Your task to perform on an android device: uninstall "Airtel Thanks" Image 0: 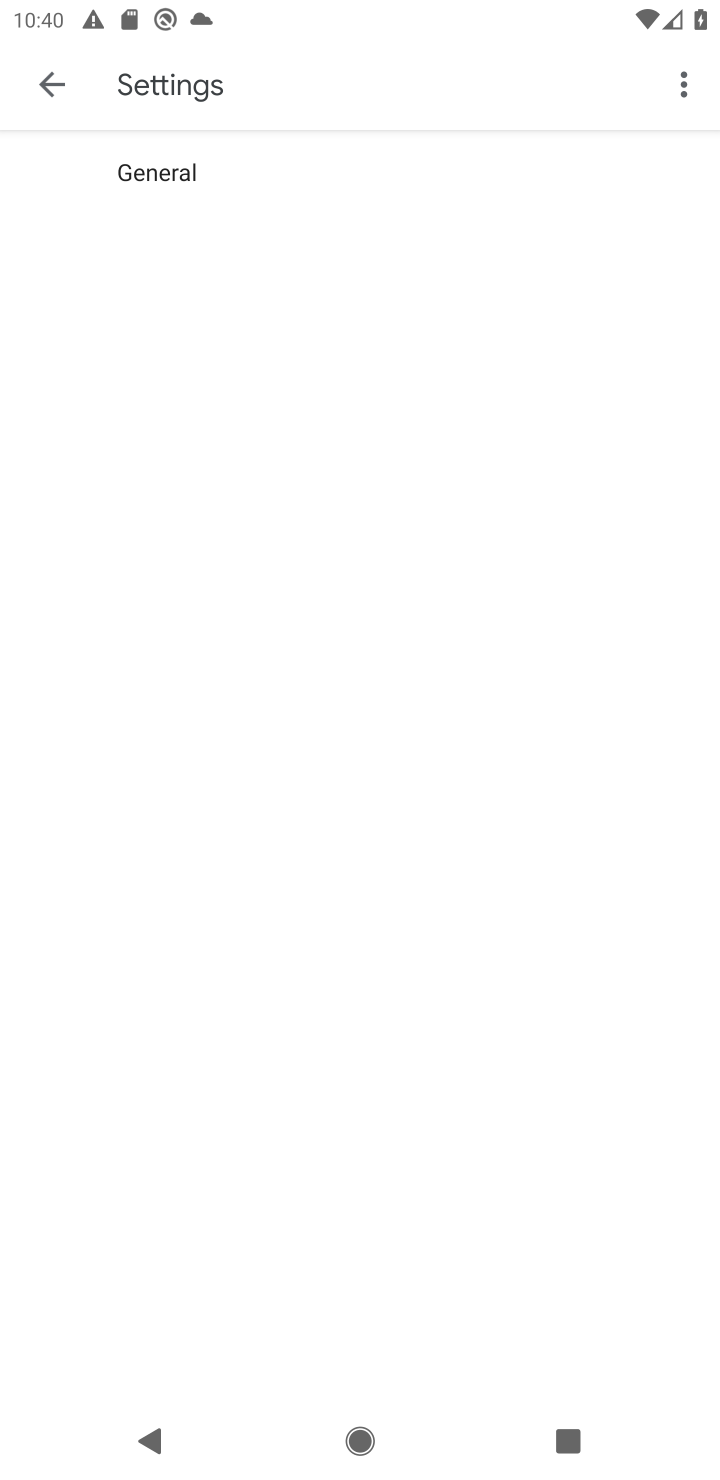
Step 0: press home button
Your task to perform on an android device: uninstall "Airtel Thanks" Image 1: 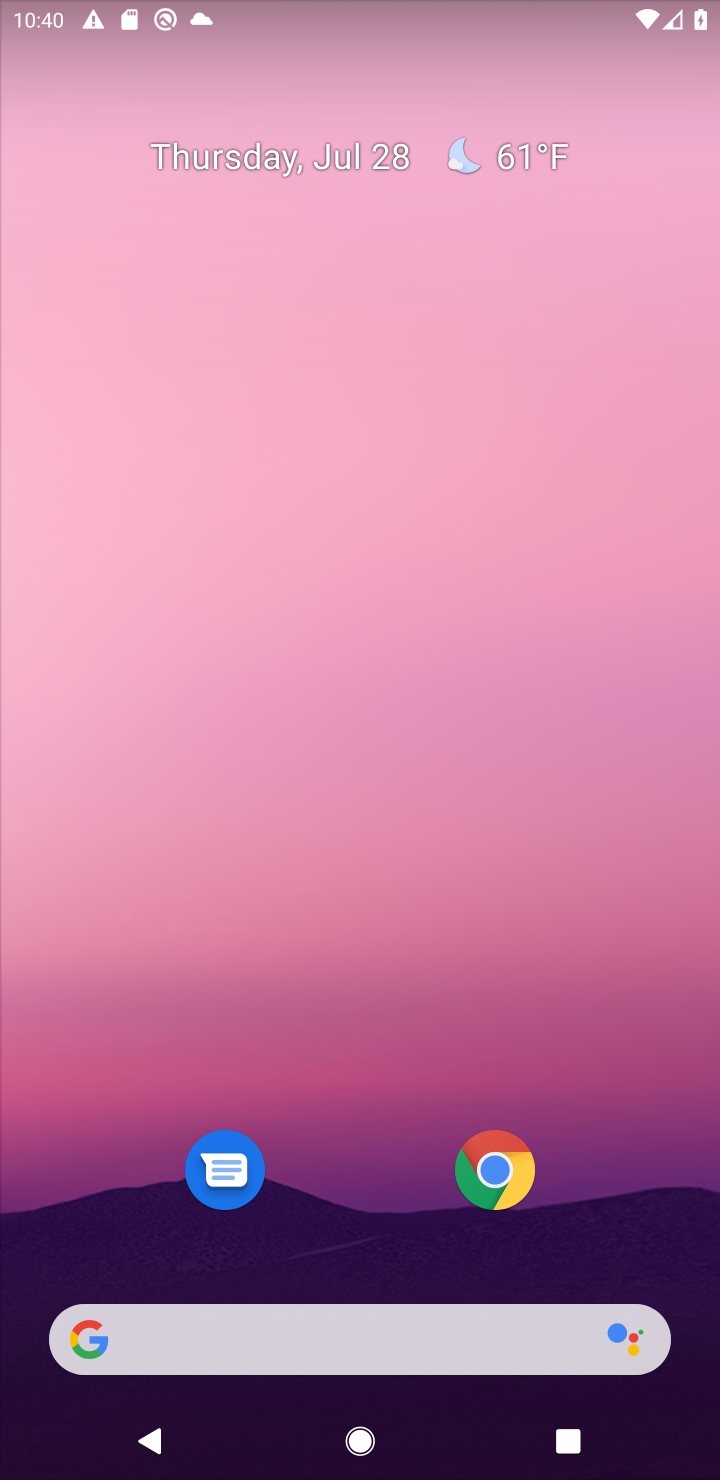
Step 1: drag from (304, 1270) to (372, 18)
Your task to perform on an android device: uninstall "Airtel Thanks" Image 2: 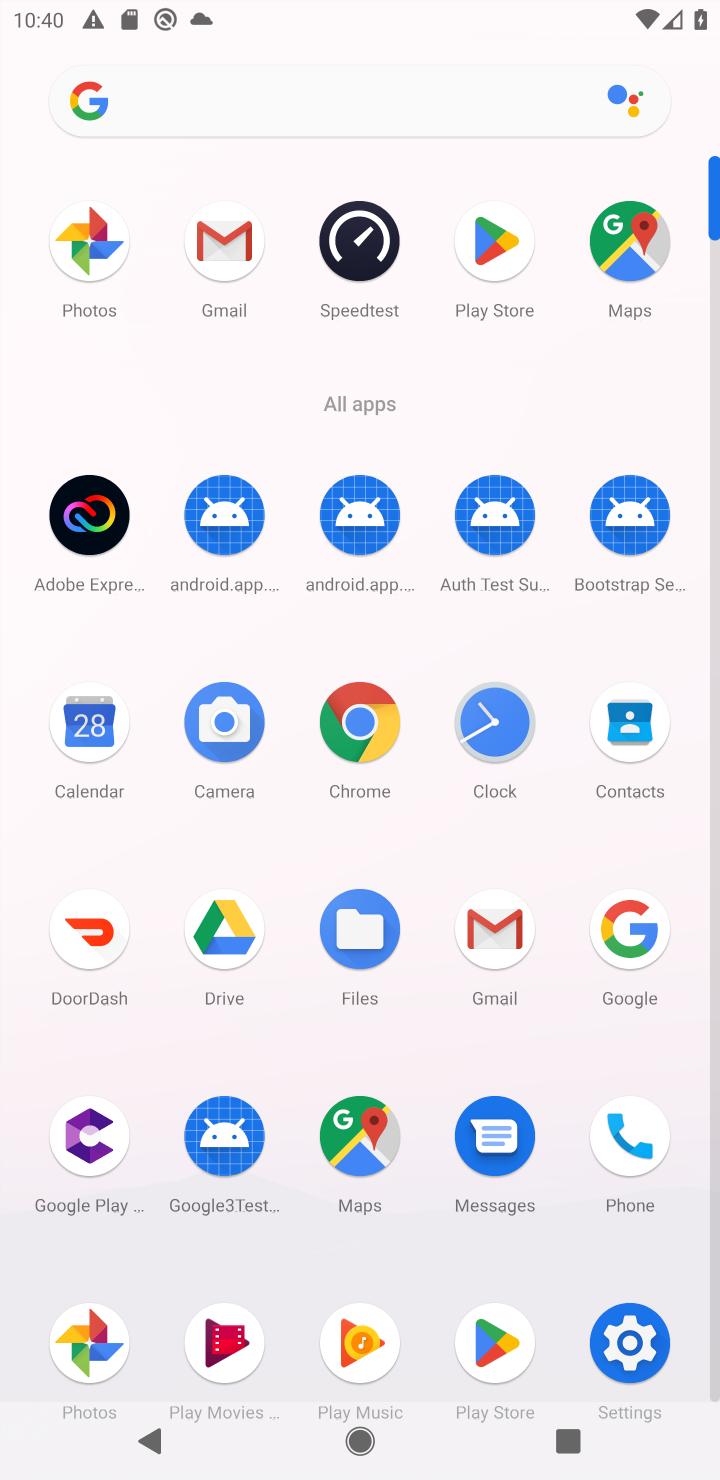
Step 2: click (499, 271)
Your task to perform on an android device: uninstall "Airtel Thanks" Image 3: 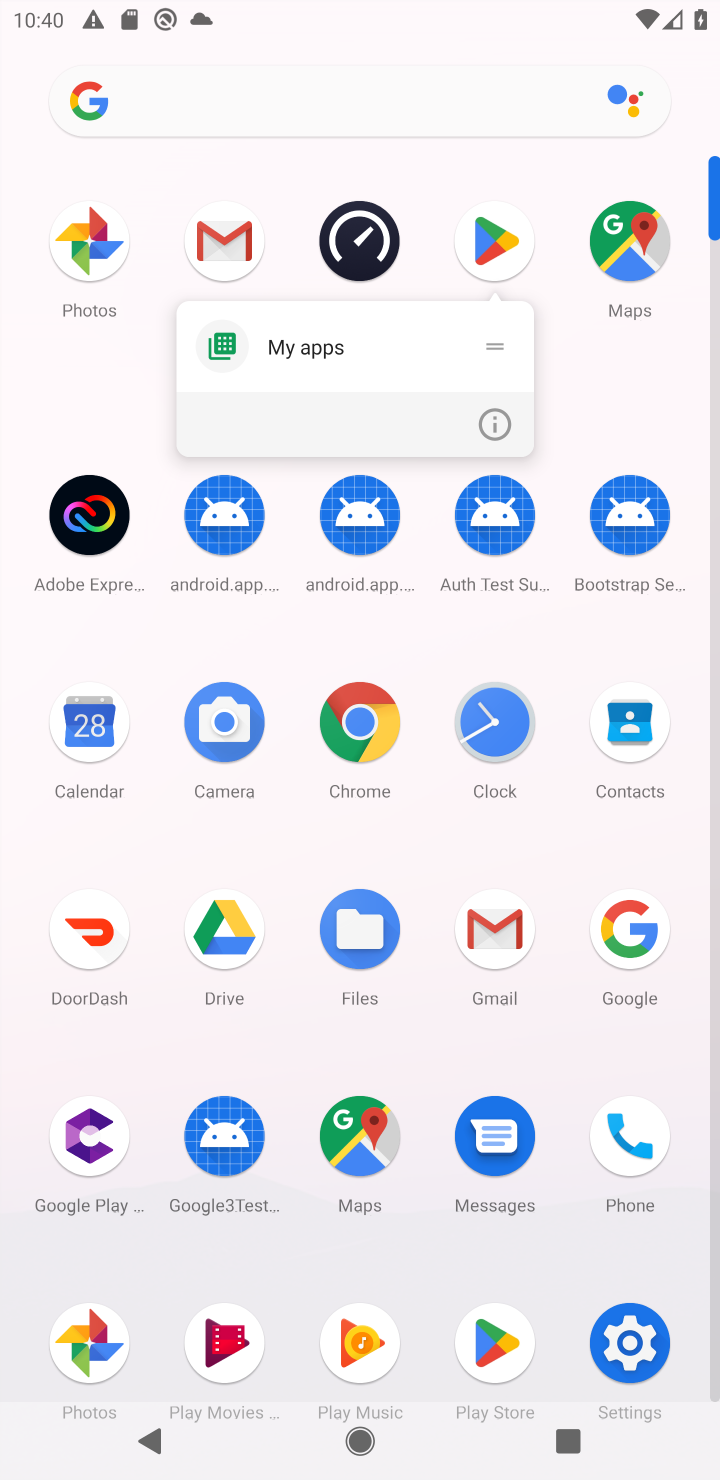
Step 3: click (504, 225)
Your task to perform on an android device: uninstall "Airtel Thanks" Image 4: 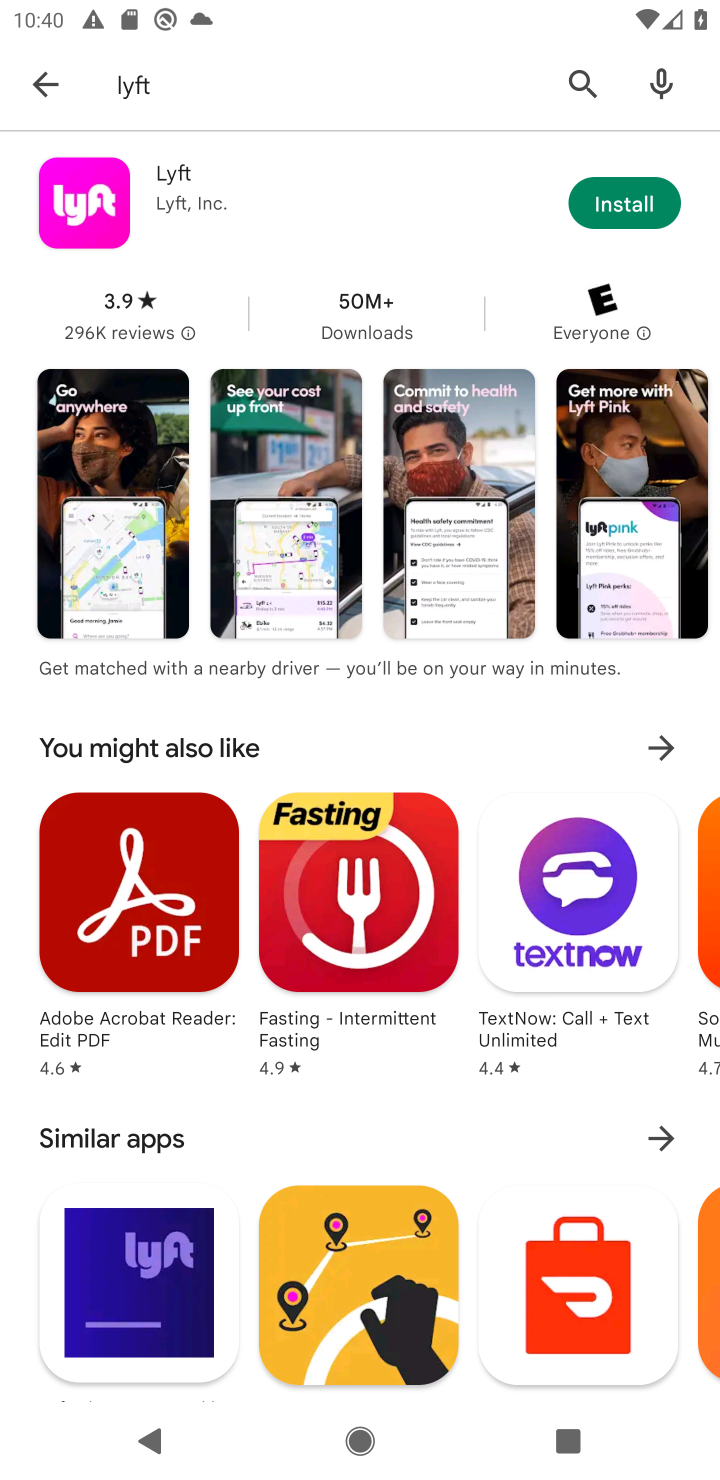
Step 4: click (330, 99)
Your task to perform on an android device: uninstall "Airtel Thanks" Image 5: 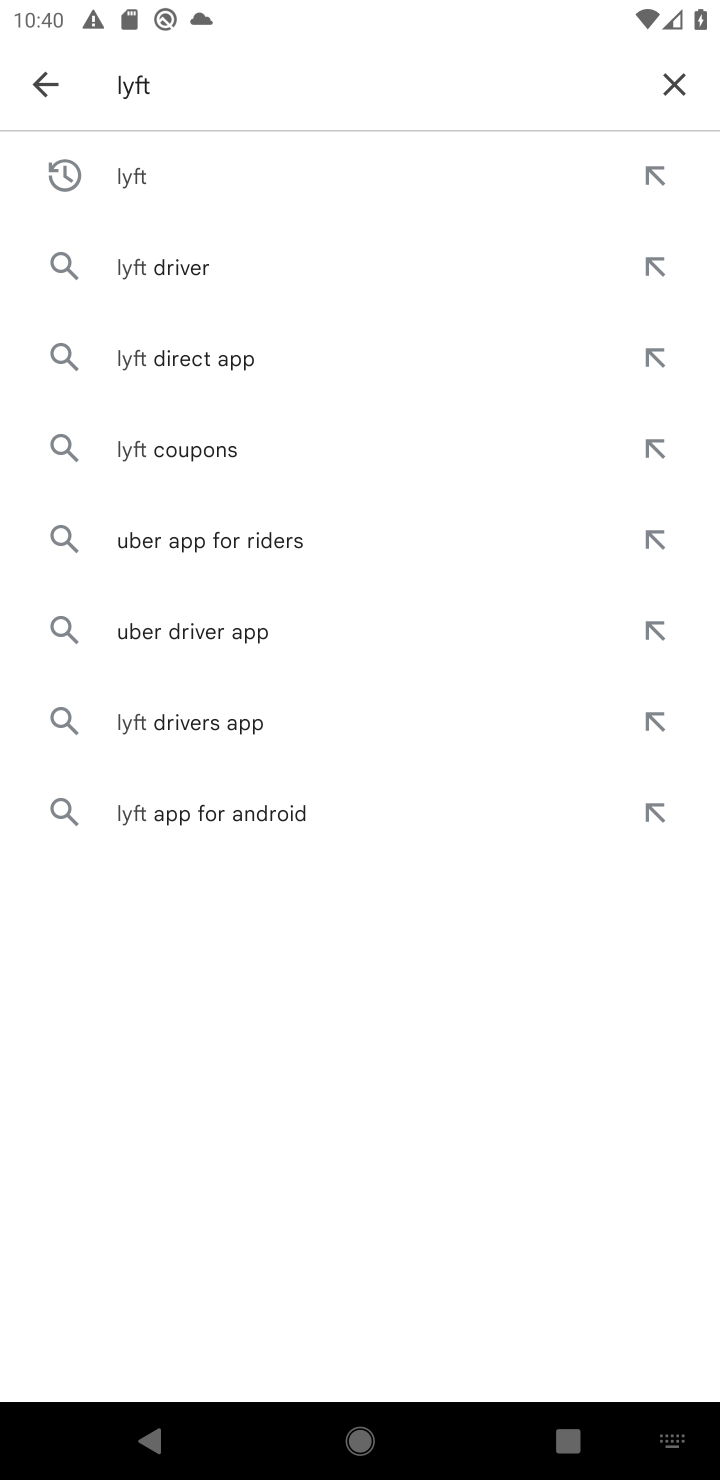
Step 5: click (662, 75)
Your task to perform on an android device: uninstall "Airtel Thanks" Image 6: 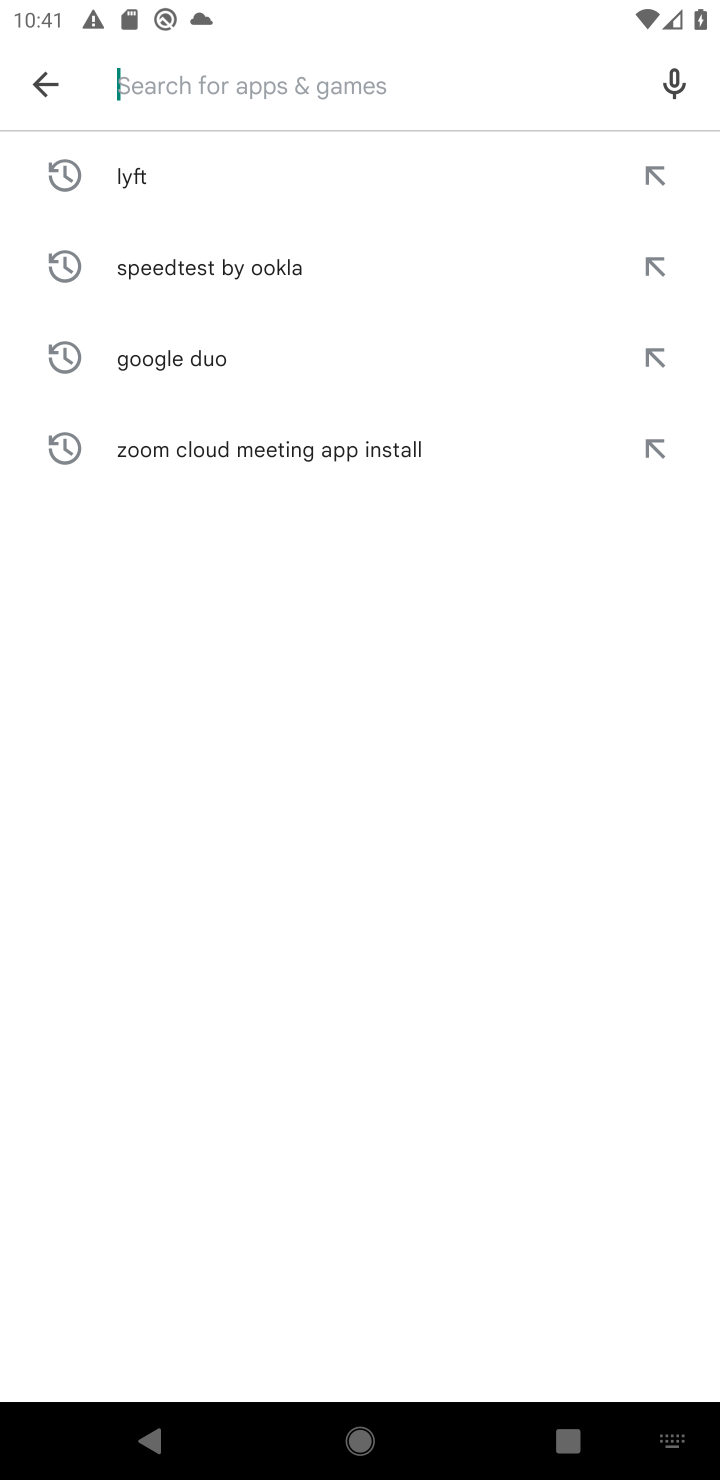
Step 6: type "Airtel Thanks"
Your task to perform on an android device: uninstall "Airtel Thanks" Image 7: 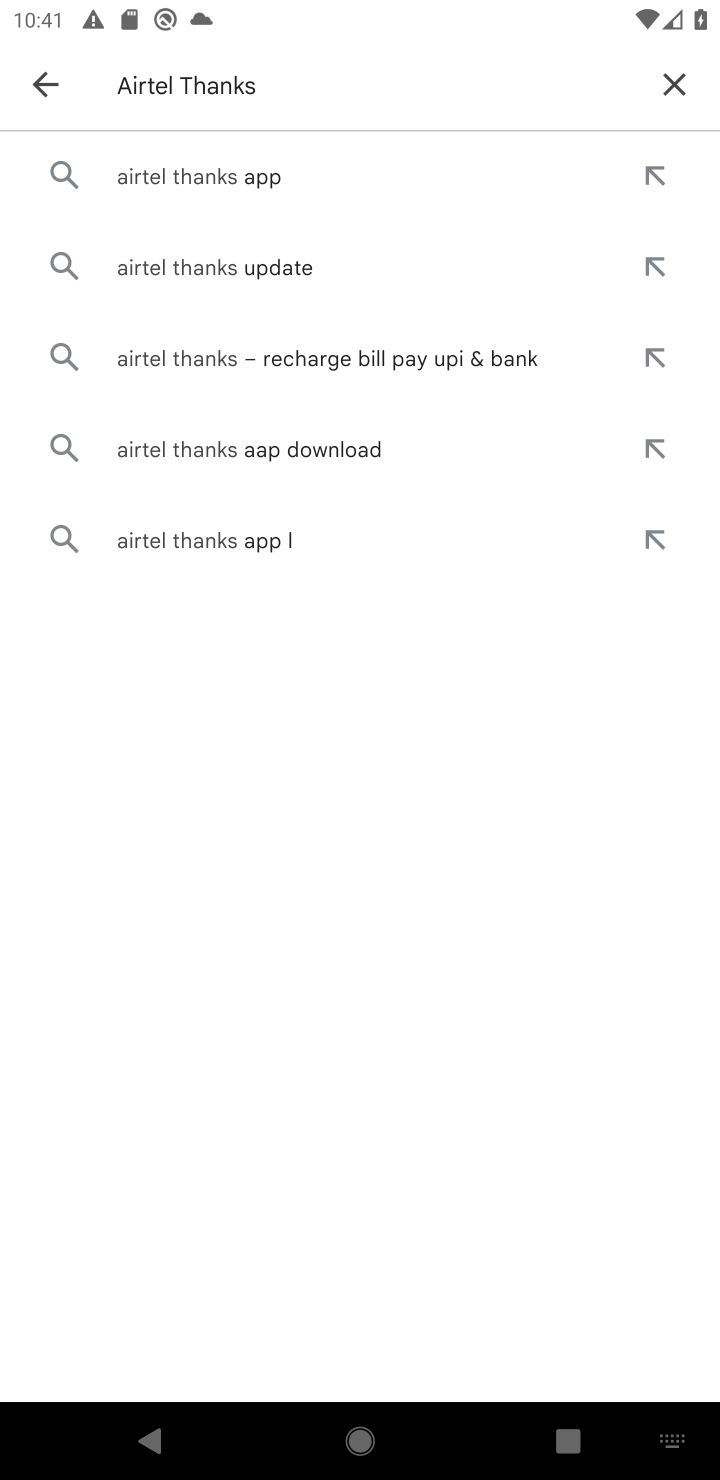
Step 7: click (263, 172)
Your task to perform on an android device: uninstall "Airtel Thanks" Image 8: 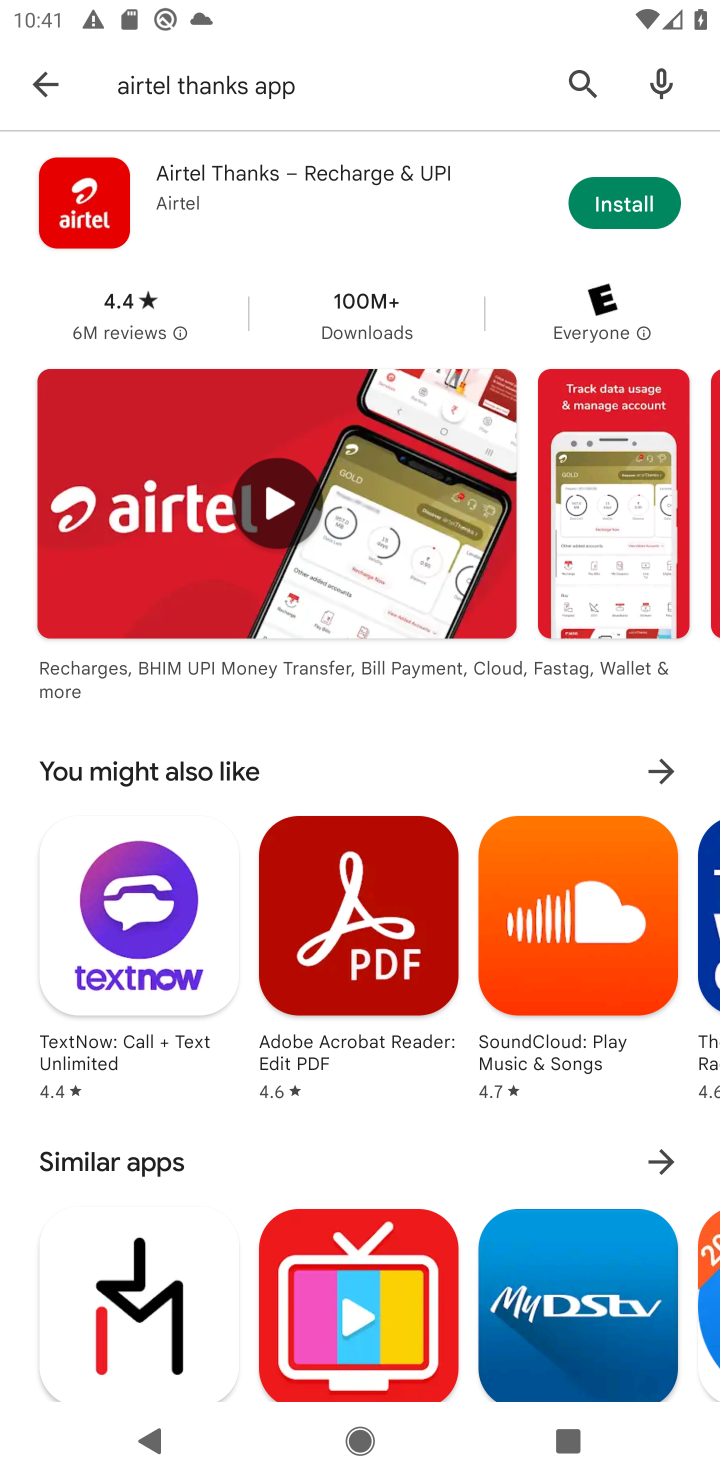
Step 8: task complete